Your task to perform on an android device: set the timer Image 0: 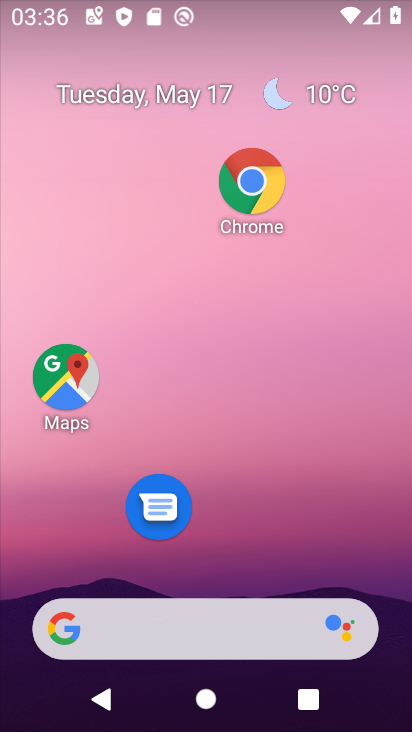
Step 0: drag from (202, 539) to (198, 167)
Your task to perform on an android device: set the timer Image 1: 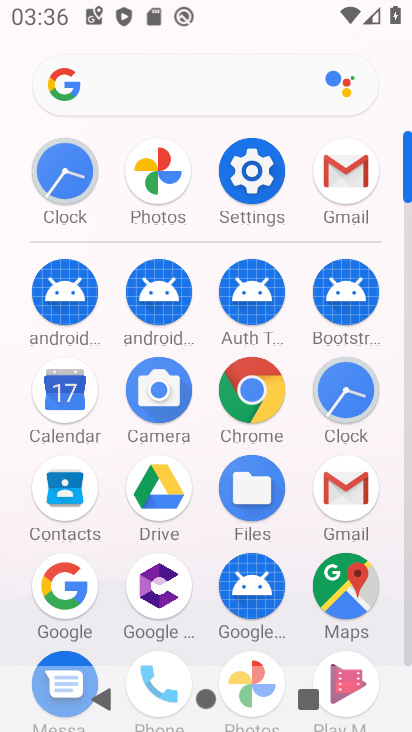
Step 1: click (373, 407)
Your task to perform on an android device: set the timer Image 2: 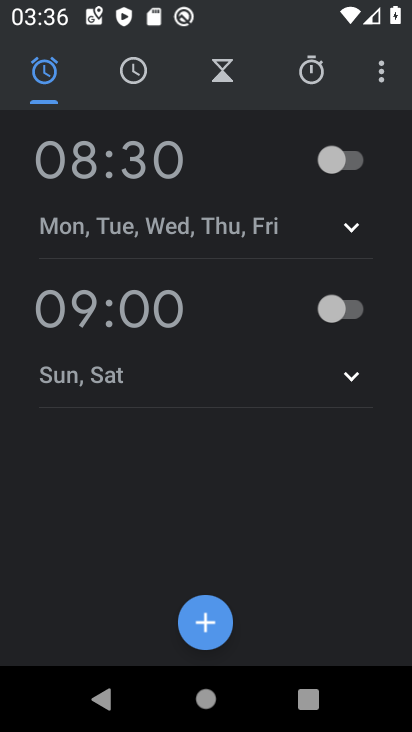
Step 2: click (252, 46)
Your task to perform on an android device: set the timer Image 3: 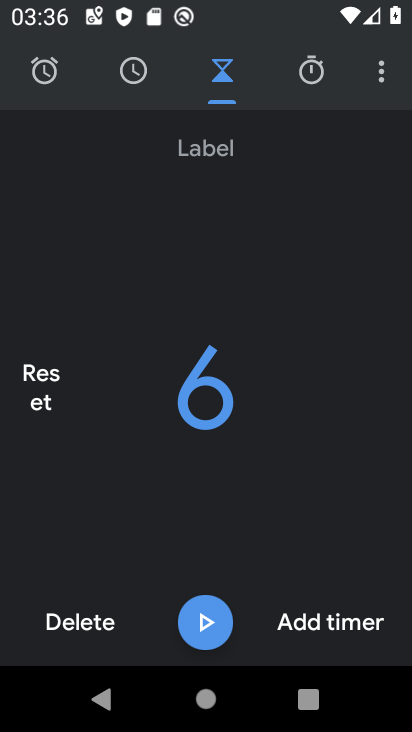
Step 3: click (181, 617)
Your task to perform on an android device: set the timer Image 4: 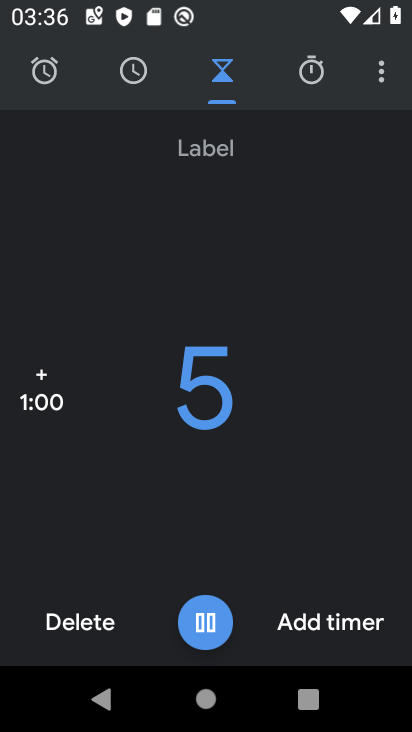
Step 4: task complete